Your task to perform on an android device: Open display settings Image 0: 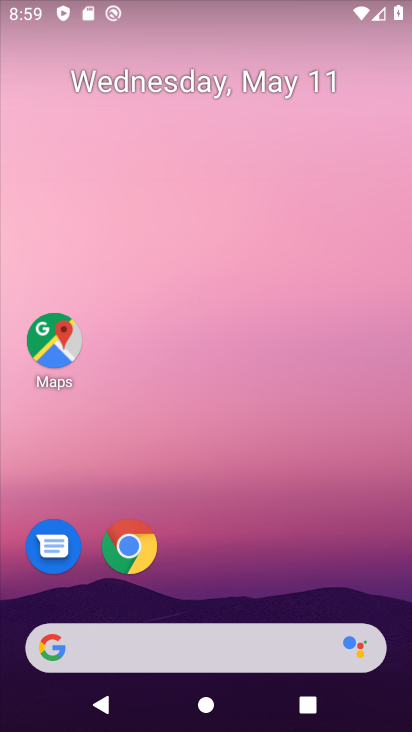
Step 0: drag from (191, 607) to (294, 131)
Your task to perform on an android device: Open display settings Image 1: 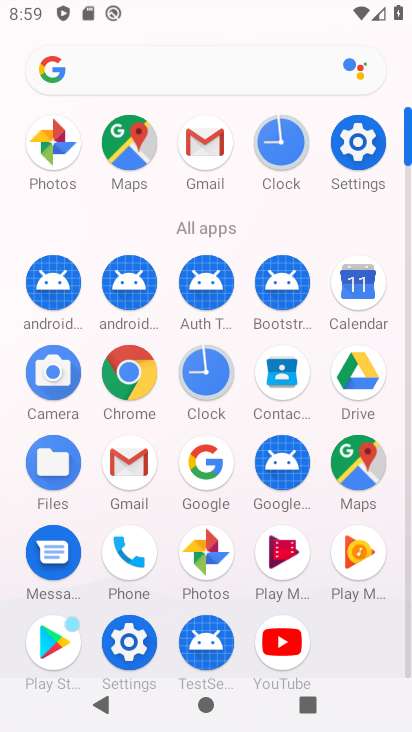
Step 1: click (130, 643)
Your task to perform on an android device: Open display settings Image 2: 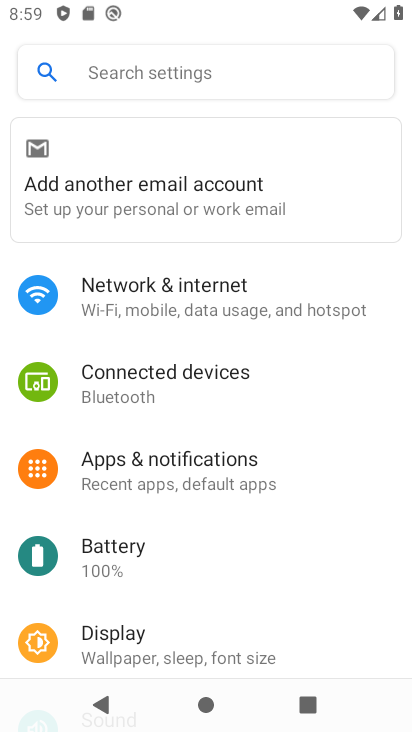
Step 2: click (153, 627)
Your task to perform on an android device: Open display settings Image 3: 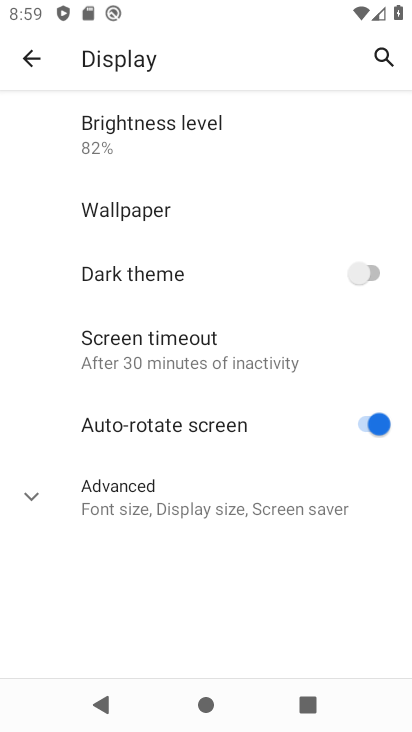
Step 3: task complete